Your task to perform on an android device: Find coffee shops on Maps Image 0: 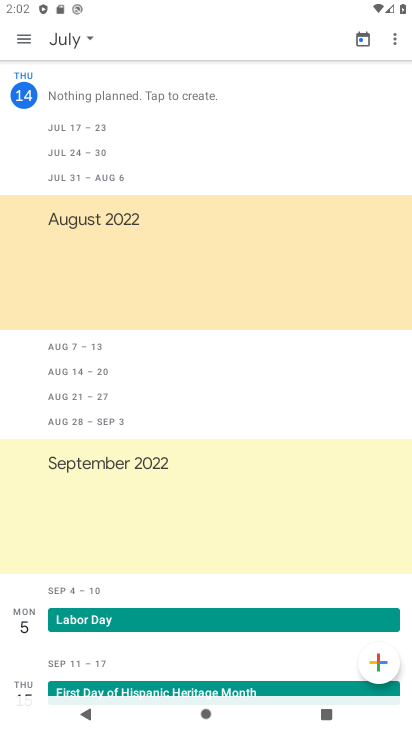
Step 0: press home button
Your task to perform on an android device: Find coffee shops on Maps Image 1: 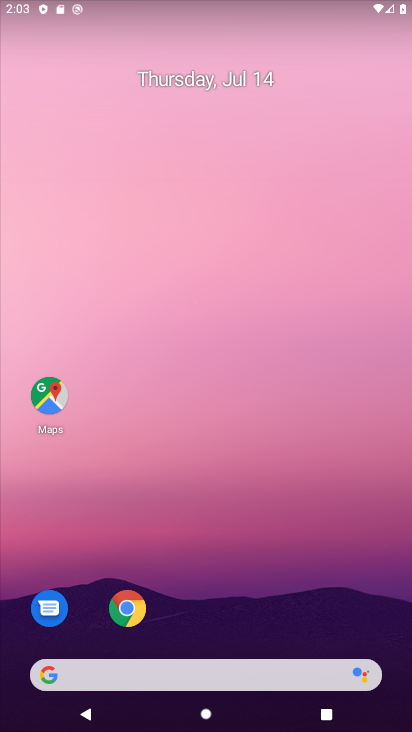
Step 1: drag from (222, 658) to (275, 271)
Your task to perform on an android device: Find coffee shops on Maps Image 2: 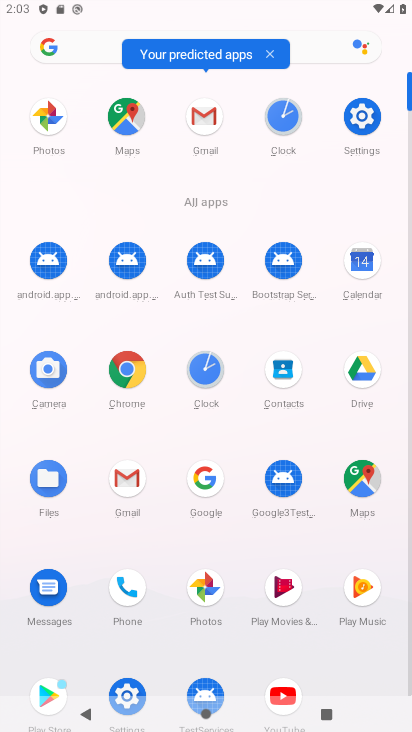
Step 2: click (357, 479)
Your task to perform on an android device: Find coffee shops on Maps Image 3: 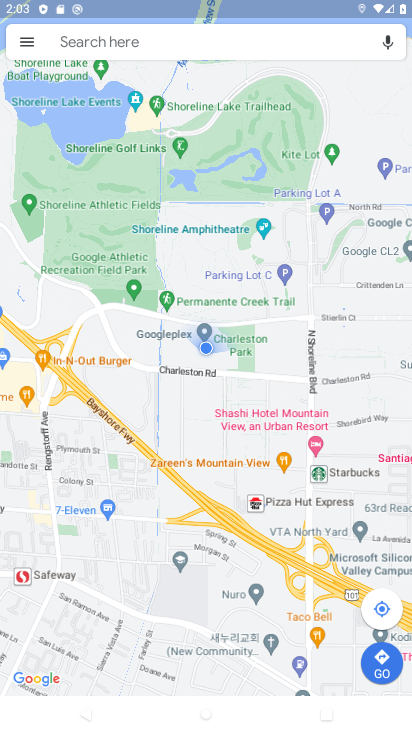
Step 3: click (135, 30)
Your task to perform on an android device: Find coffee shops on Maps Image 4: 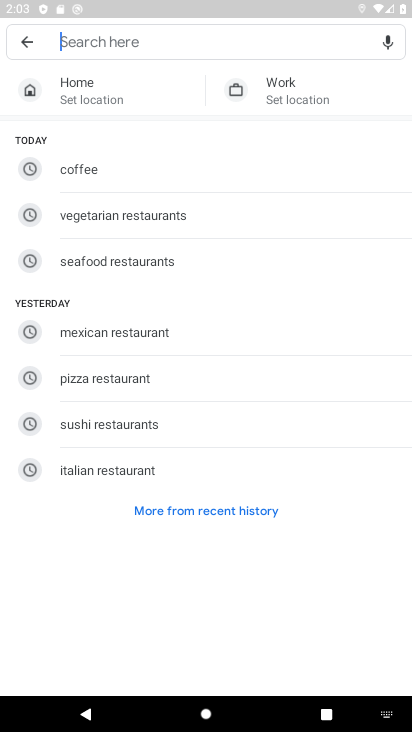
Step 4: click (99, 178)
Your task to perform on an android device: Find coffee shops on Maps Image 5: 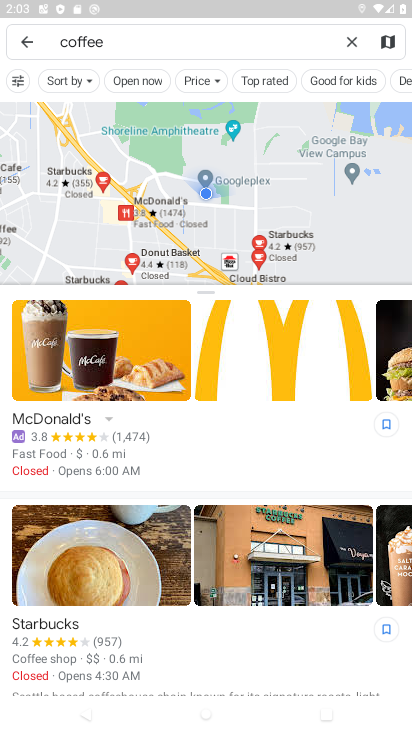
Step 5: task complete